Your task to perform on an android device: change the clock display to digital Image 0: 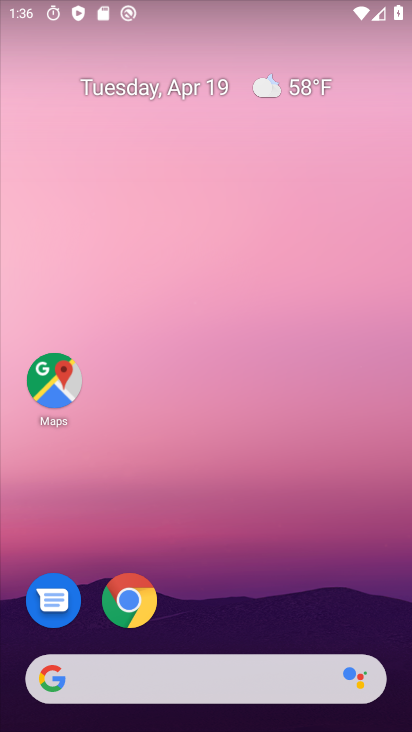
Step 0: drag from (242, 651) to (381, 157)
Your task to perform on an android device: change the clock display to digital Image 1: 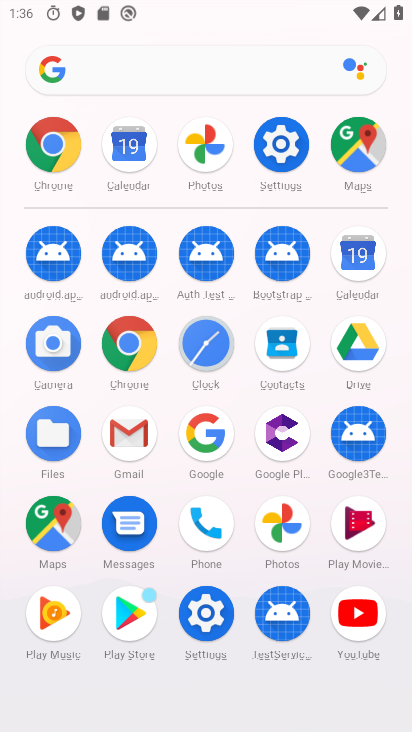
Step 1: click (216, 349)
Your task to perform on an android device: change the clock display to digital Image 2: 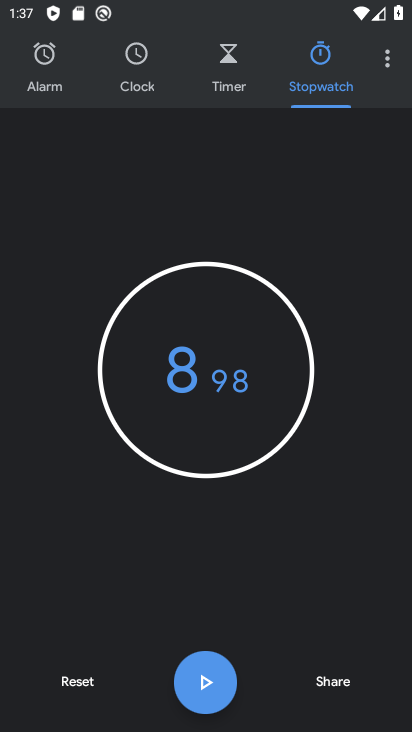
Step 2: click (388, 60)
Your task to perform on an android device: change the clock display to digital Image 3: 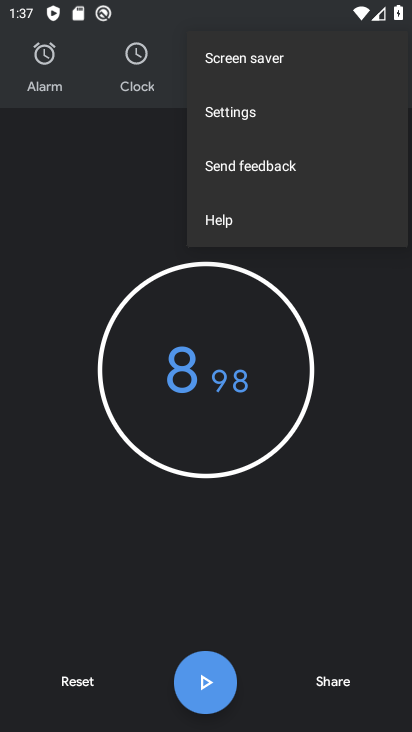
Step 3: click (254, 99)
Your task to perform on an android device: change the clock display to digital Image 4: 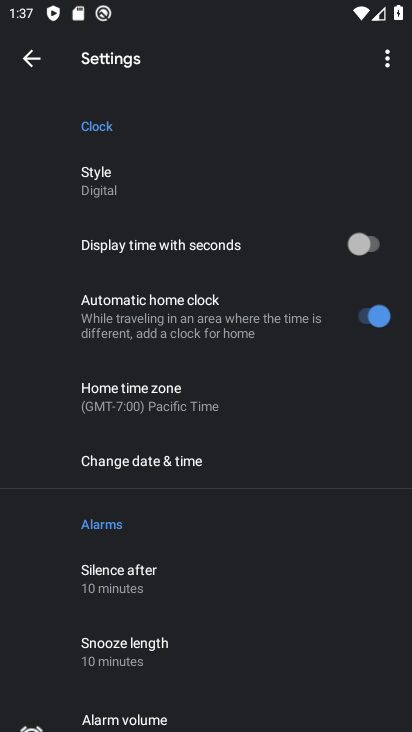
Step 4: click (117, 176)
Your task to perform on an android device: change the clock display to digital Image 5: 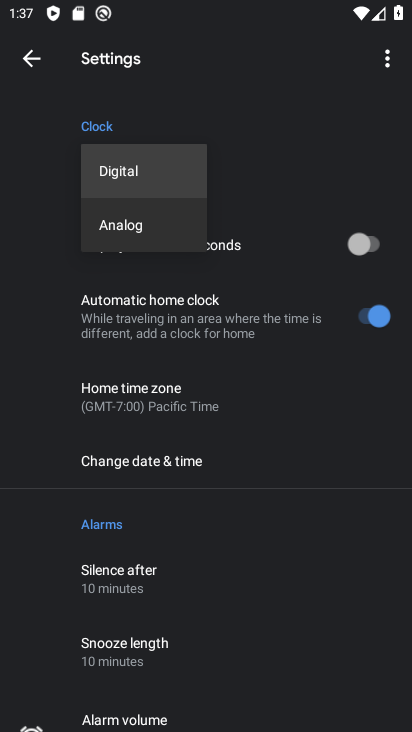
Step 5: click (117, 176)
Your task to perform on an android device: change the clock display to digital Image 6: 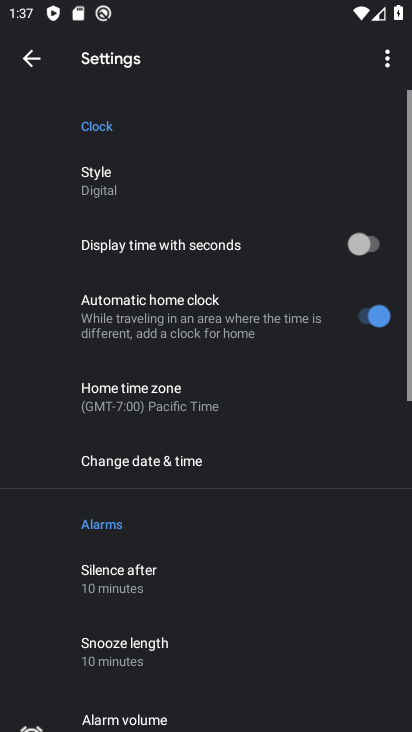
Step 6: task complete